Your task to perform on an android device: turn on priority inbox in the gmail app Image 0: 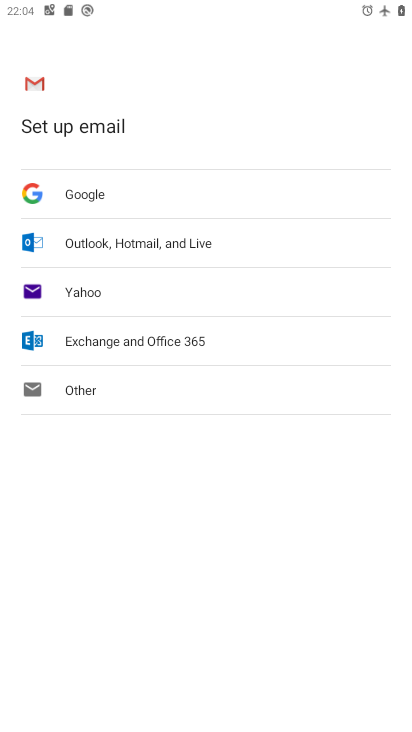
Step 0: press home button
Your task to perform on an android device: turn on priority inbox in the gmail app Image 1: 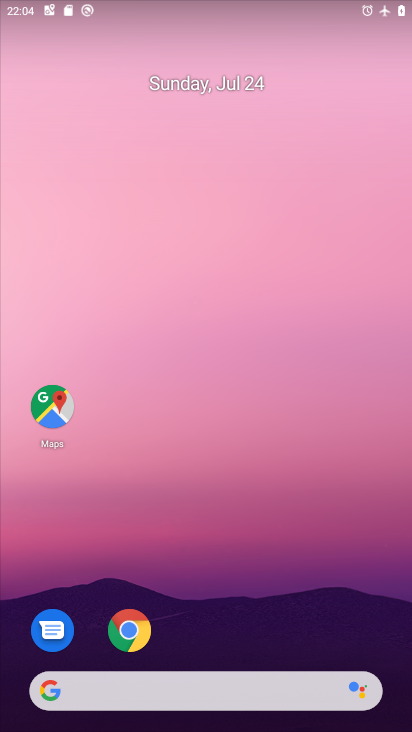
Step 1: drag from (259, 676) to (255, 164)
Your task to perform on an android device: turn on priority inbox in the gmail app Image 2: 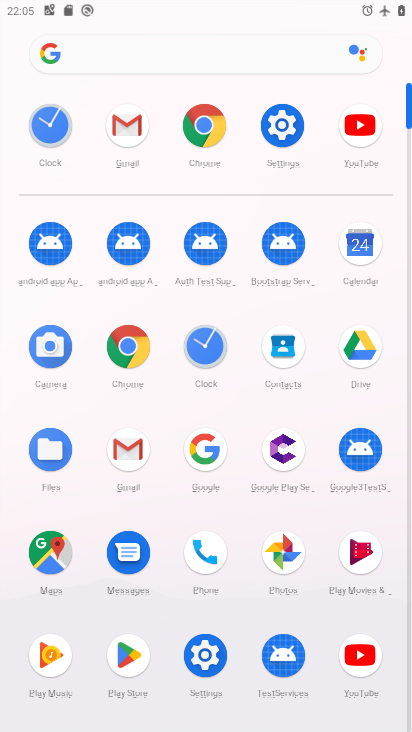
Step 2: click (130, 117)
Your task to perform on an android device: turn on priority inbox in the gmail app Image 3: 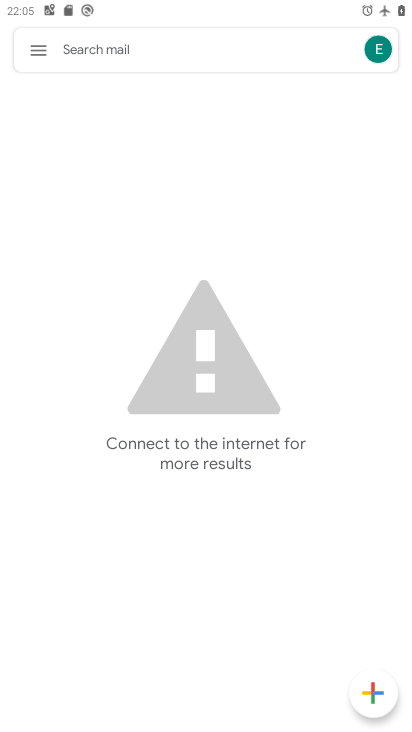
Step 3: click (38, 44)
Your task to perform on an android device: turn on priority inbox in the gmail app Image 4: 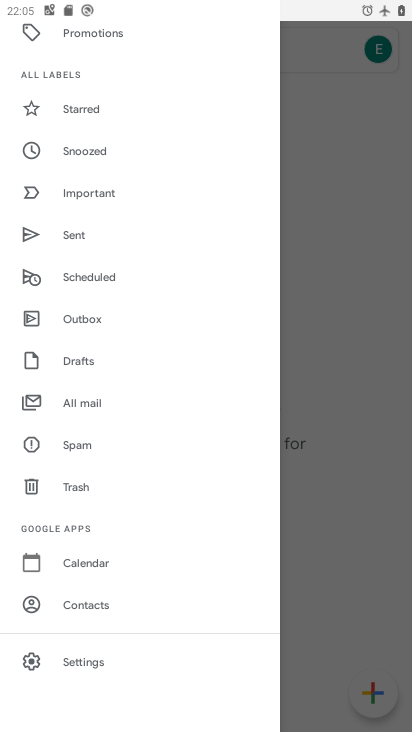
Step 4: click (114, 654)
Your task to perform on an android device: turn on priority inbox in the gmail app Image 5: 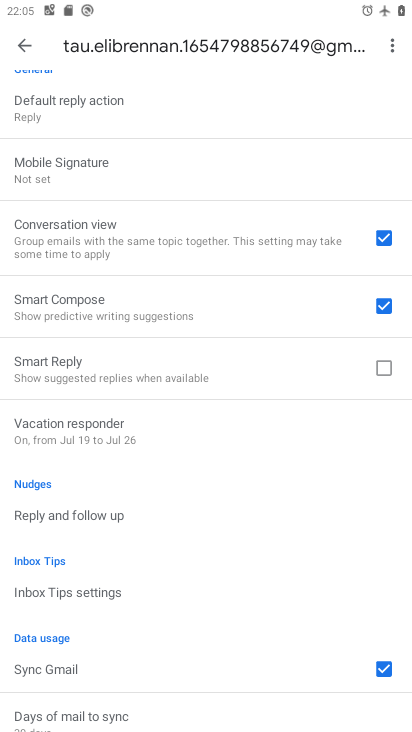
Step 5: drag from (173, 337) to (209, 156)
Your task to perform on an android device: turn on priority inbox in the gmail app Image 6: 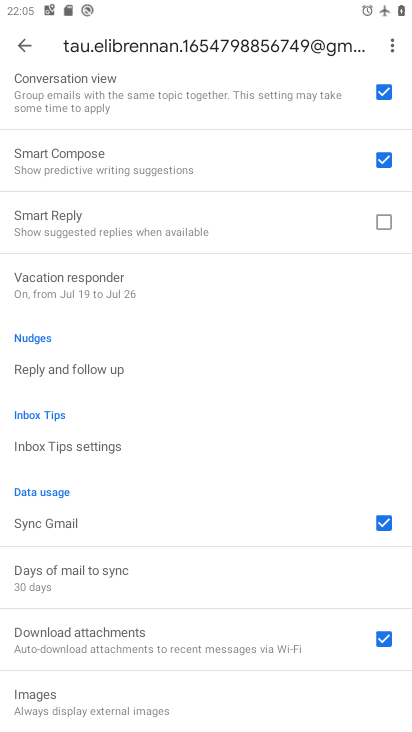
Step 6: drag from (106, 148) to (118, 405)
Your task to perform on an android device: turn on priority inbox in the gmail app Image 7: 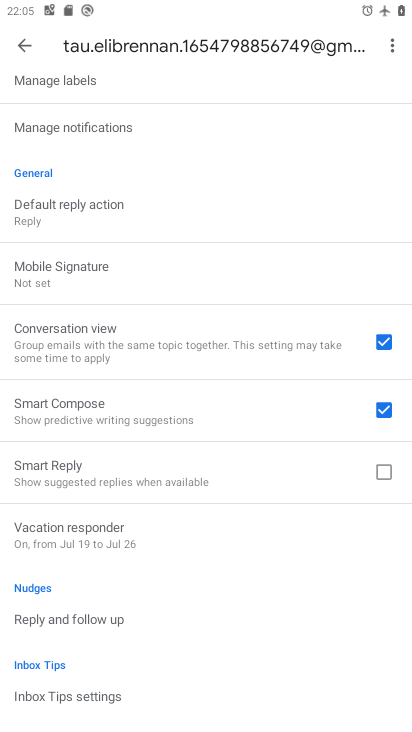
Step 7: drag from (128, 265) to (141, 622)
Your task to perform on an android device: turn on priority inbox in the gmail app Image 8: 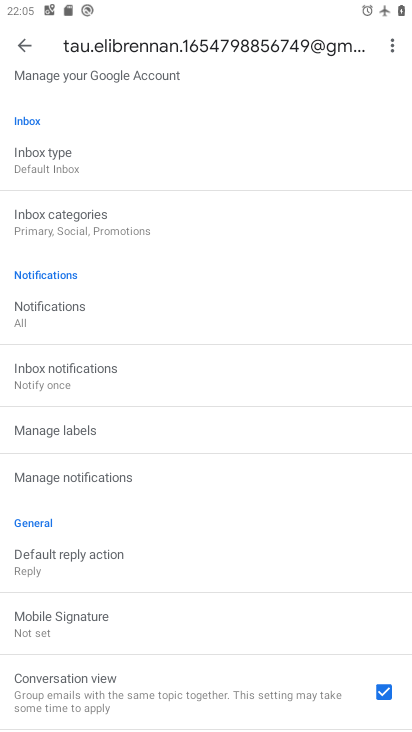
Step 8: click (90, 155)
Your task to perform on an android device: turn on priority inbox in the gmail app Image 9: 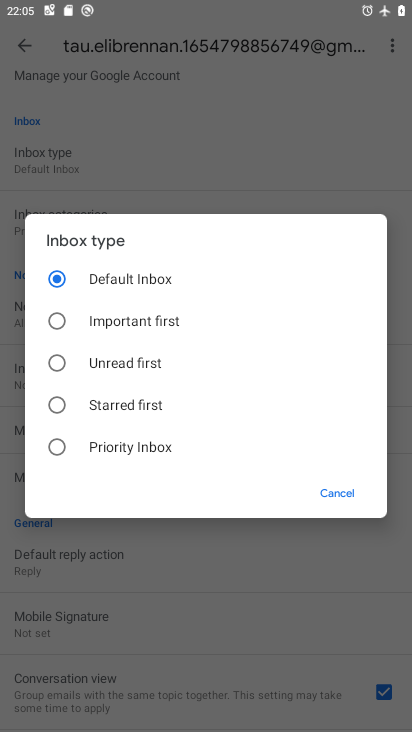
Step 9: click (139, 448)
Your task to perform on an android device: turn on priority inbox in the gmail app Image 10: 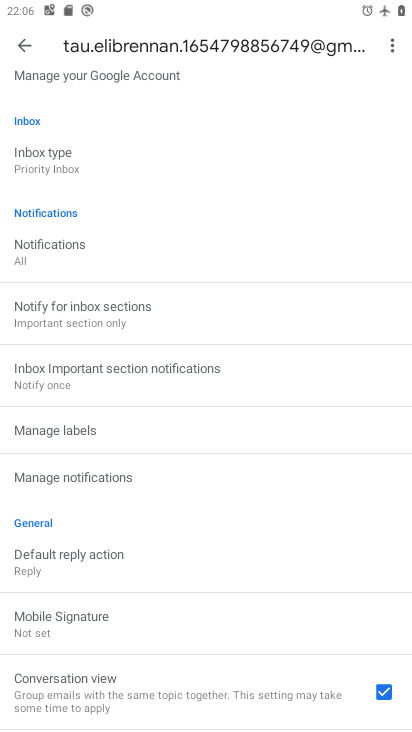
Step 10: task complete